Your task to perform on an android device: turn on location history Image 0: 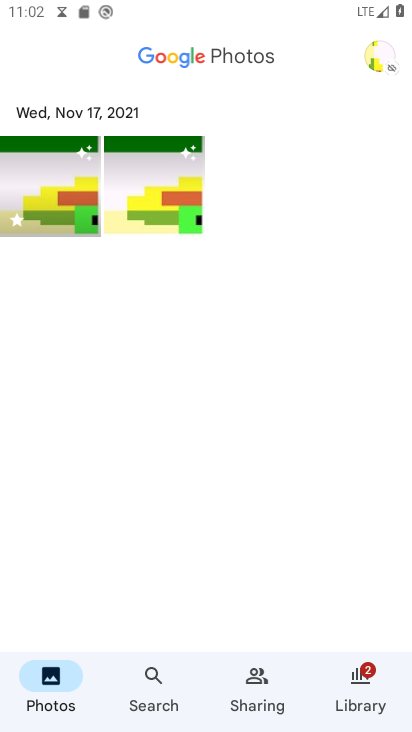
Step 0: press home button
Your task to perform on an android device: turn on location history Image 1: 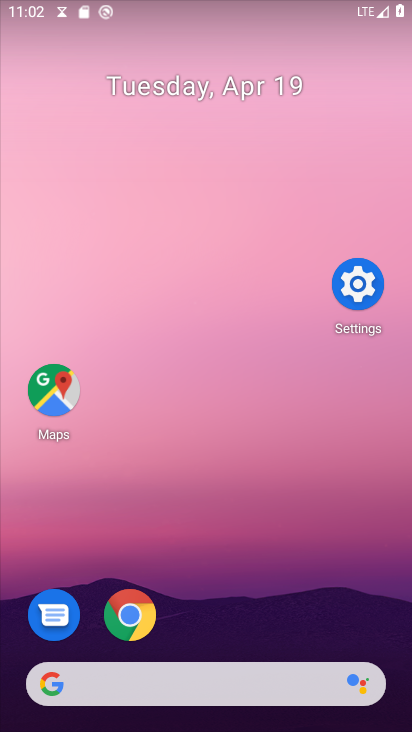
Step 1: drag from (229, 435) to (320, 94)
Your task to perform on an android device: turn on location history Image 2: 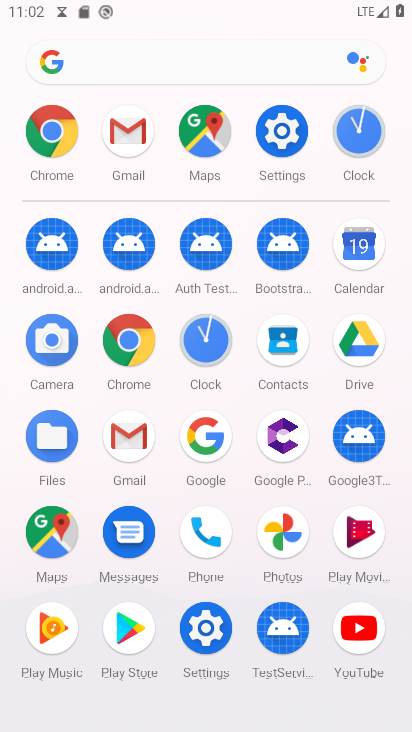
Step 2: click (183, 623)
Your task to perform on an android device: turn on location history Image 3: 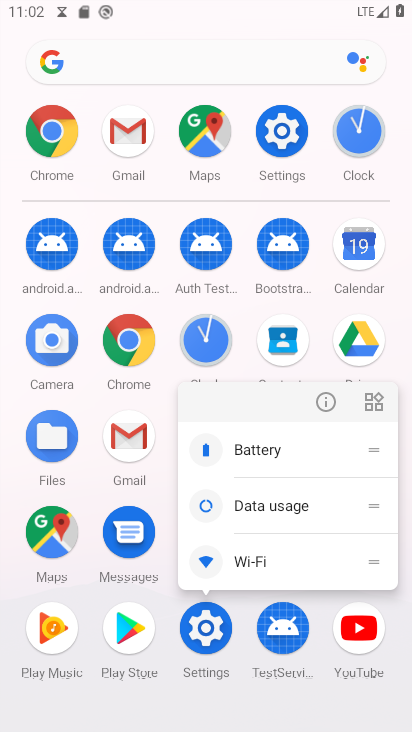
Step 3: click (334, 397)
Your task to perform on an android device: turn on location history Image 4: 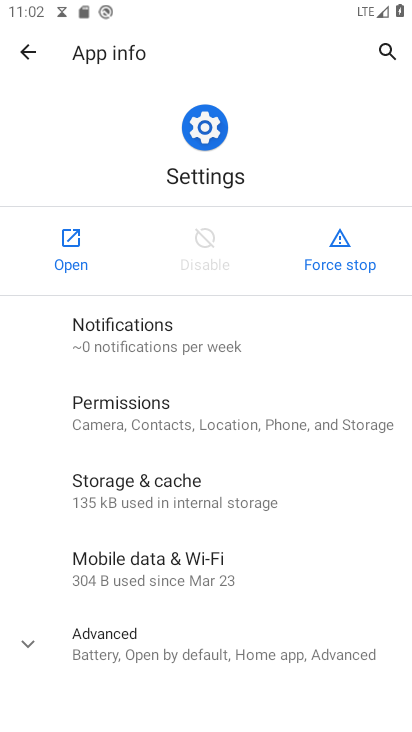
Step 4: click (81, 259)
Your task to perform on an android device: turn on location history Image 5: 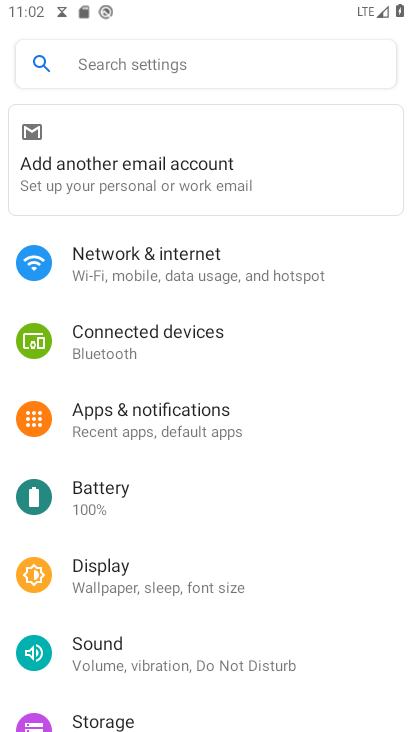
Step 5: drag from (209, 528) to (371, 93)
Your task to perform on an android device: turn on location history Image 6: 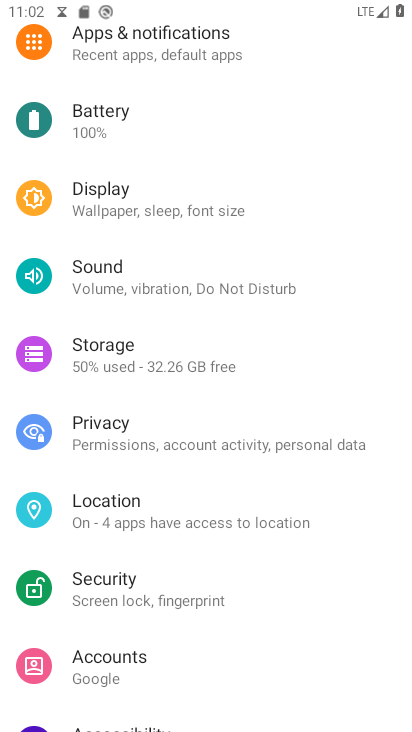
Step 6: click (116, 514)
Your task to perform on an android device: turn on location history Image 7: 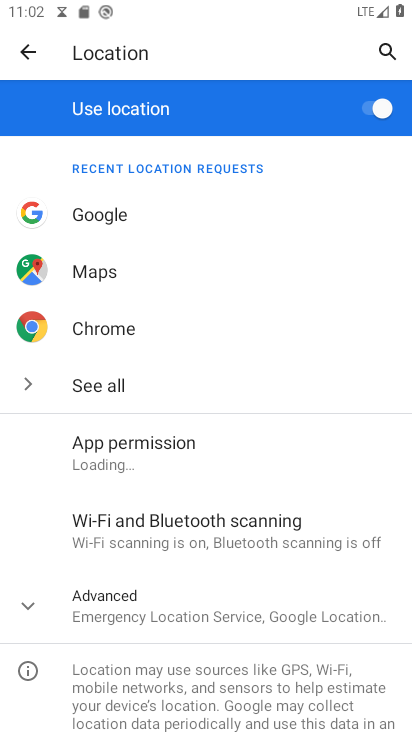
Step 7: click (182, 608)
Your task to perform on an android device: turn on location history Image 8: 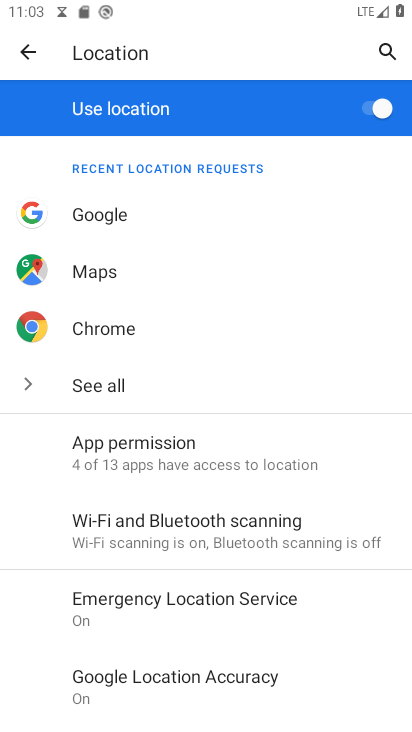
Step 8: drag from (189, 675) to (72, 617)
Your task to perform on an android device: turn on location history Image 9: 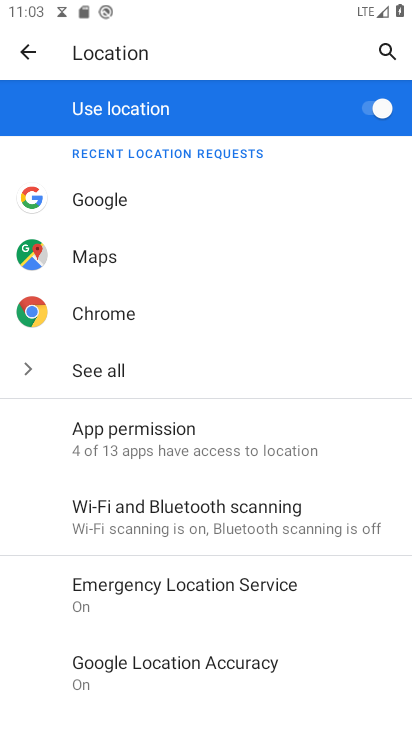
Step 9: drag from (222, 671) to (412, 118)
Your task to perform on an android device: turn on location history Image 10: 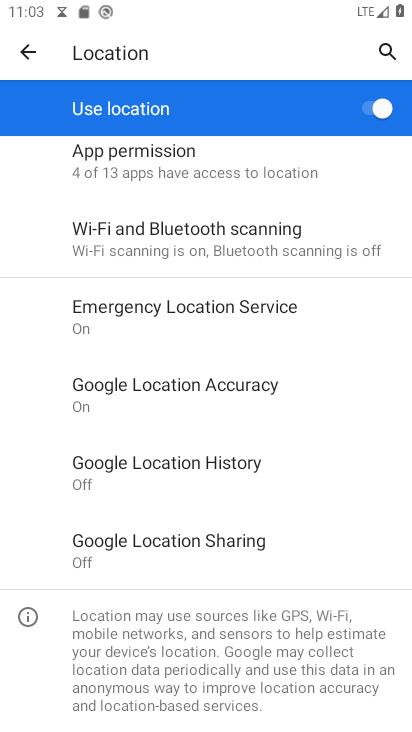
Step 10: click (154, 465)
Your task to perform on an android device: turn on location history Image 11: 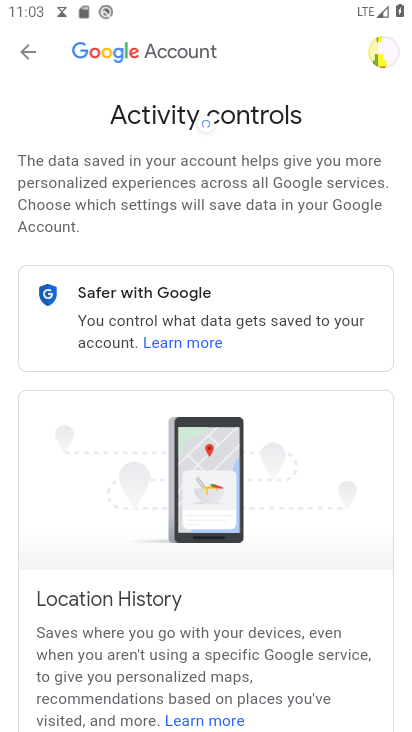
Step 11: drag from (221, 618) to (407, 158)
Your task to perform on an android device: turn on location history Image 12: 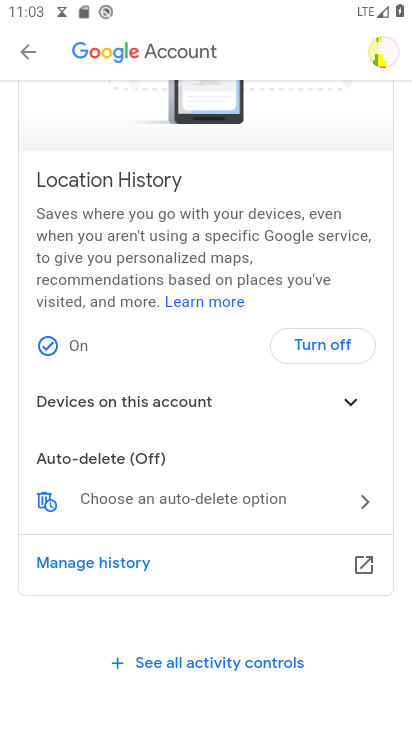
Step 12: click (37, 509)
Your task to perform on an android device: turn on location history Image 13: 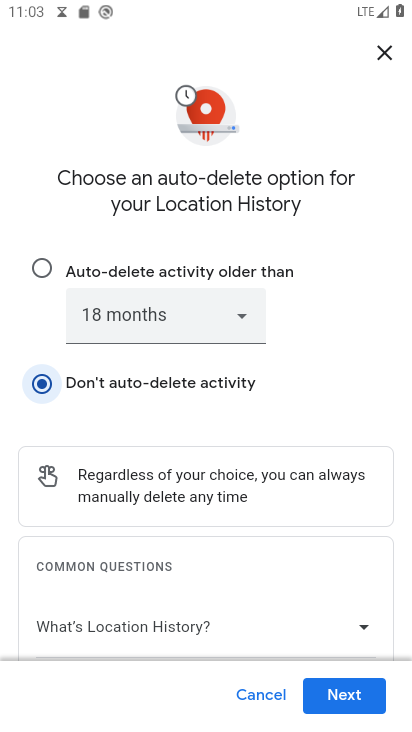
Step 13: click (340, 685)
Your task to perform on an android device: turn on location history Image 14: 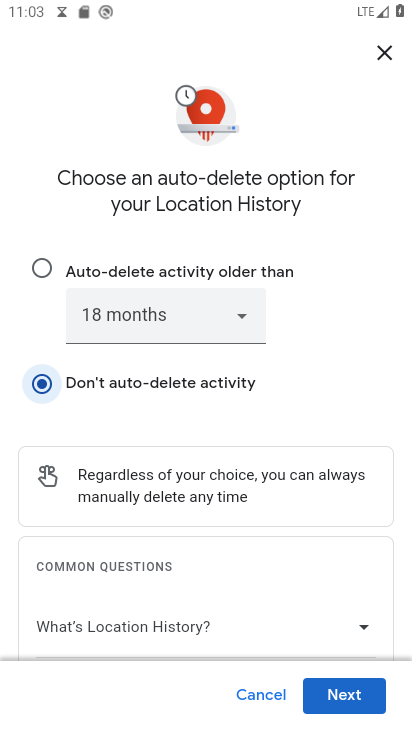
Step 14: click (344, 695)
Your task to perform on an android device: turn on location history Image 15: 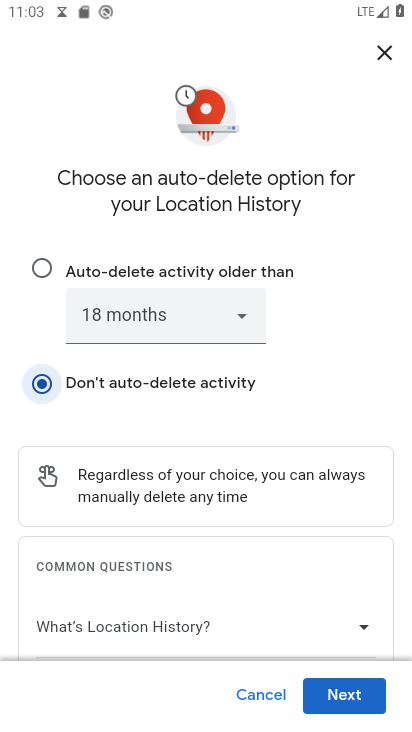
Step 15: click (341, 694)
Your task to perform on an android device: turn on location history Image 16: 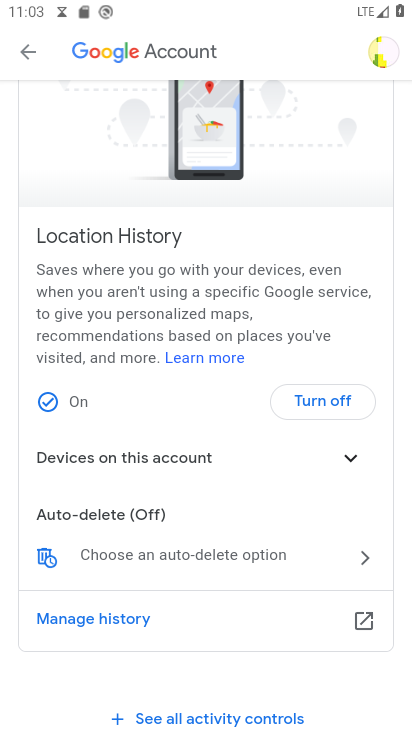
Step 16: task complete